Your task to perform on an android device: Go to network settings Image 0: 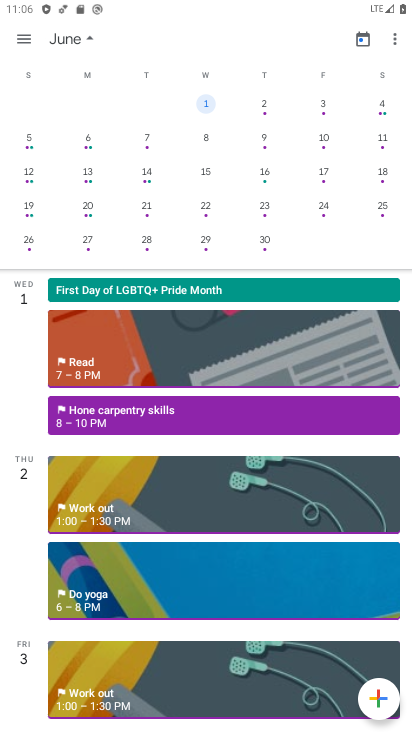
Step 0: press home button
Your task to perform on an android device: Go to network settings Image 1: 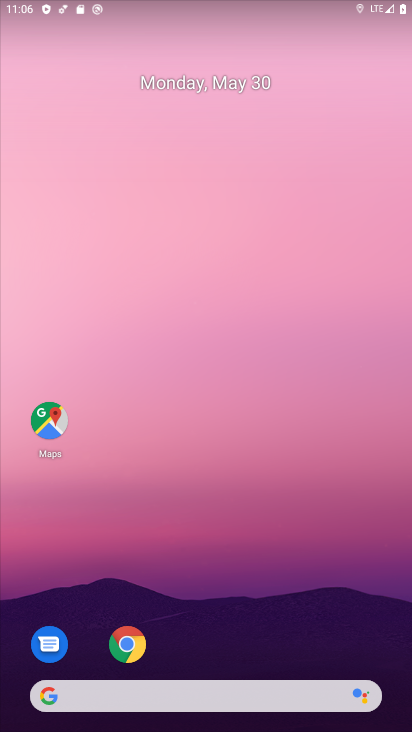
Step 1: drag from (315, 632) to (387, 458)
Your task to perform on an android device: Go to network settings Image 2: 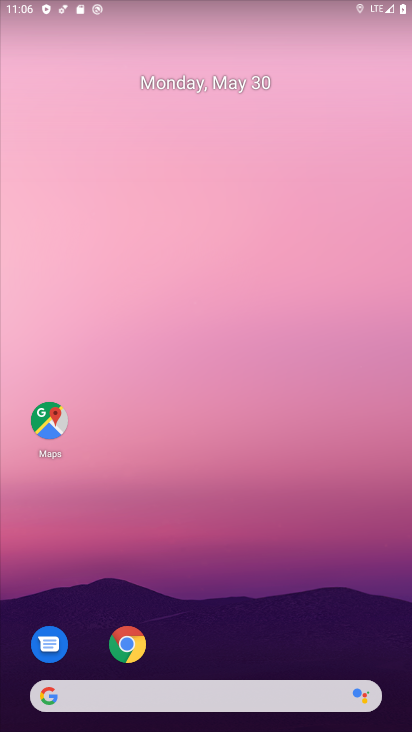
Step 2: drag from (399, 615) to (383, 166)
Your task to perform on an android device: Go to network settings Image 3: 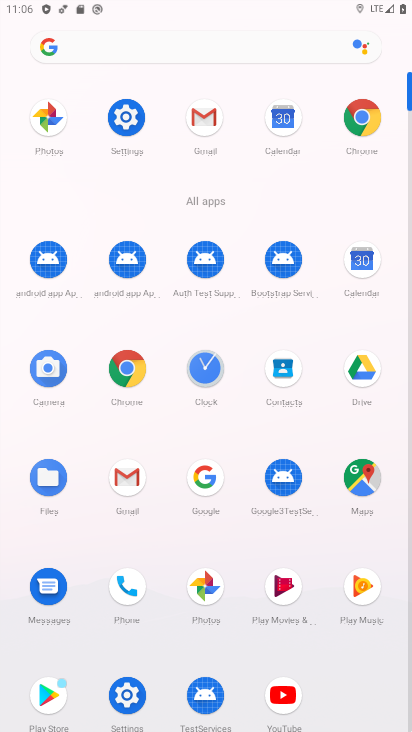
Step 3: click (109, 132)
Your task to perform on an android device: Go to network settings Image 4: 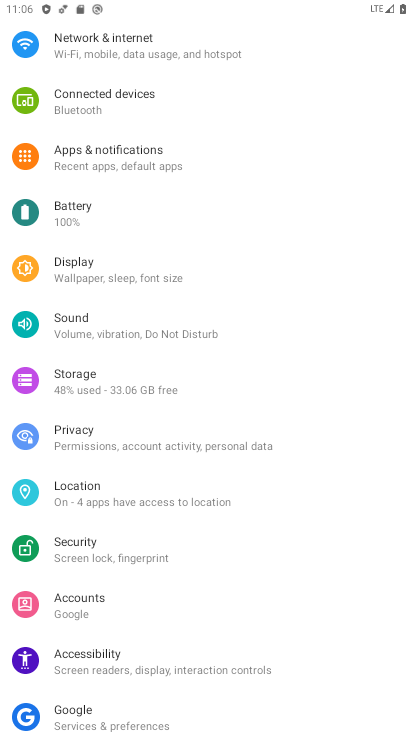
Step 4: click (184, 45)
Your task to perform on an android device: Go to network settings Image 5: 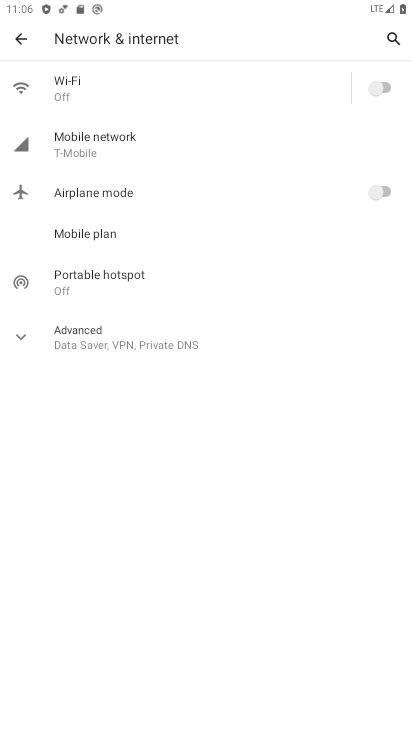
Step 5: task complete